Your task to perform on an android device: Open internet settings Image 0: 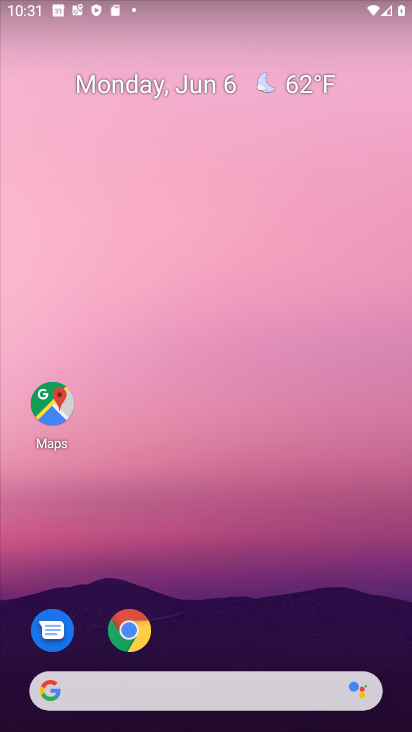
Step 0: press home button
Your task to perform on an android device: Open internet settings Image 1: 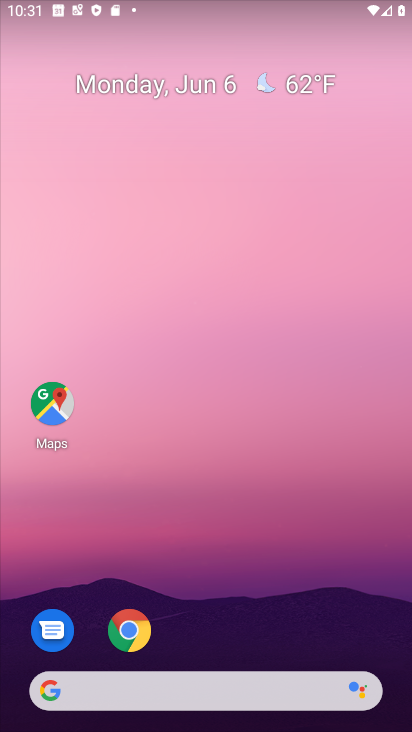
Step 1: drag from (361, 628) to (320, 76)
Your task to perform on an android device: Open internet settings Image 2: 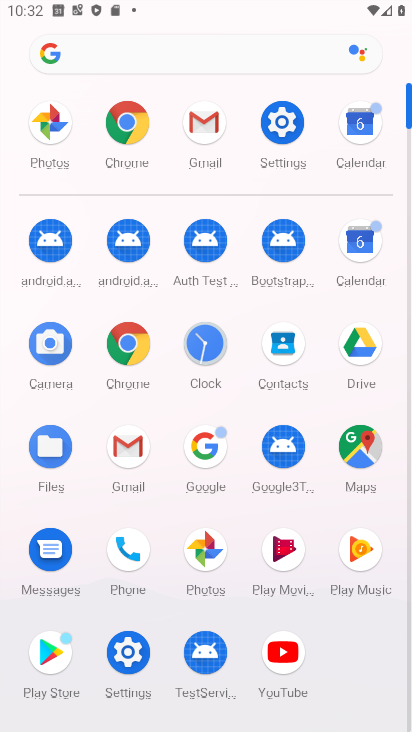
Step 2: click (137, 663)
Your task to perform on an android device: Open internet settings Image 3: 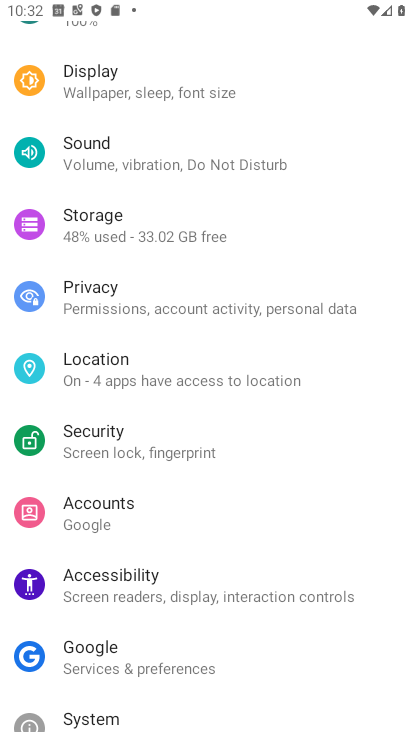
Step 3: drag from (244, 652) to (265, 234)
Your task to perform on an android device: Open internet settings Image 4: 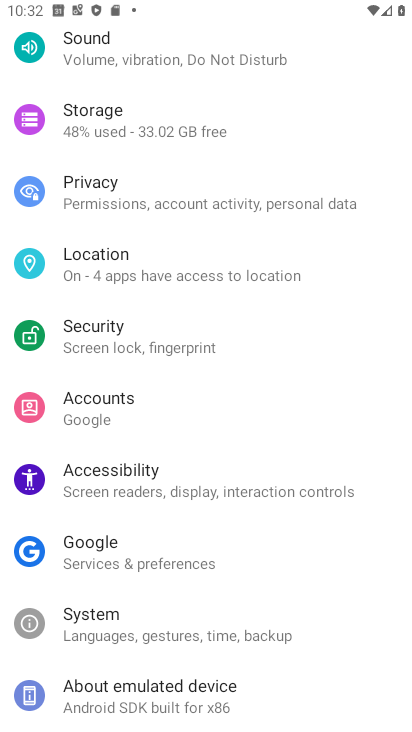
Step 4: drag from (231, 127) to (243, 607)
Your task to perform on an android device: Open internet settings Image 5: 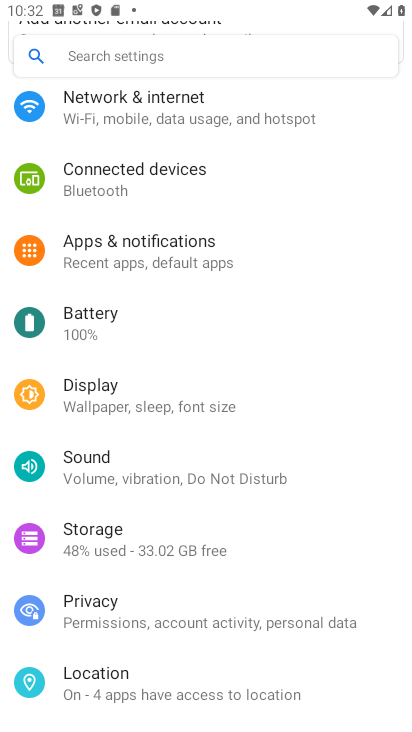
Step 5: click (186, 485)
Your task to perform on an android device: Open internet settings Image 6: 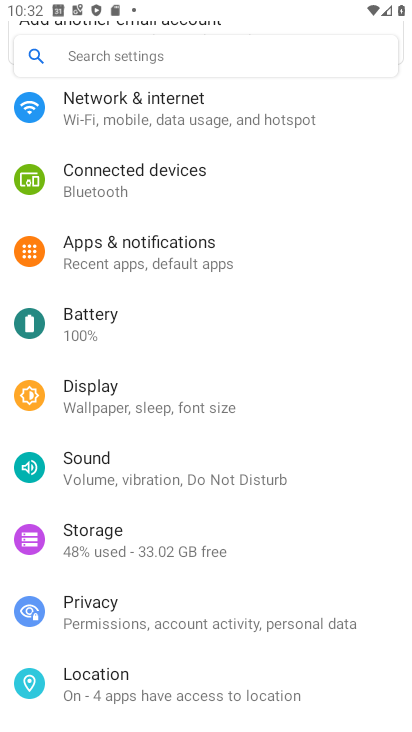
Step 6: click (219, 112)
Your task to perform on an android device: Open internet settings Image 7: 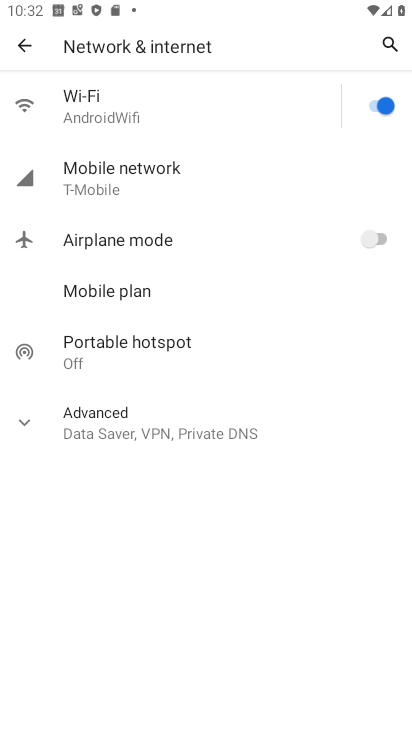
Step 7: task complete